Your task to perform on an android device: create a new album in the google photos Image 0: 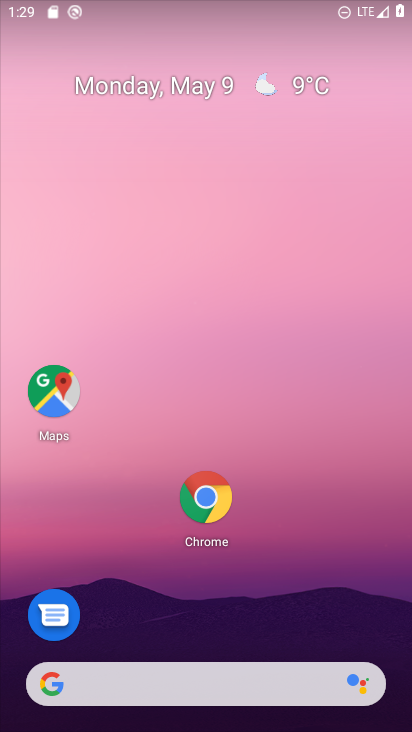
Step 0: drag from (317, 554) to (237, 57)
Your task to perform on an android device: create a new album in the google photos Image 1: 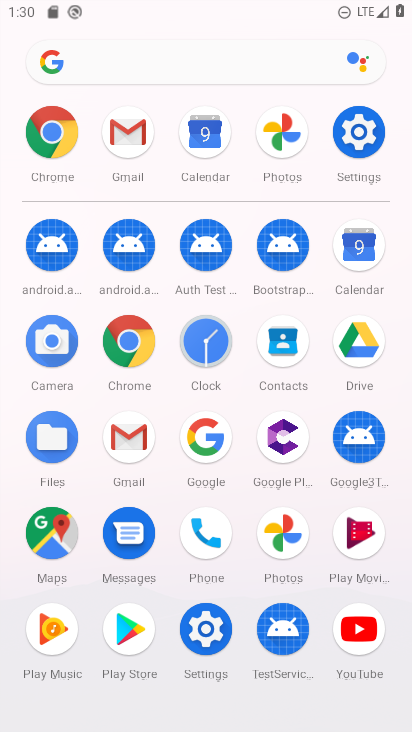
Step 1: click (283, 526)
Your task to perform on an android device: create a new album in the google photos Image 2: 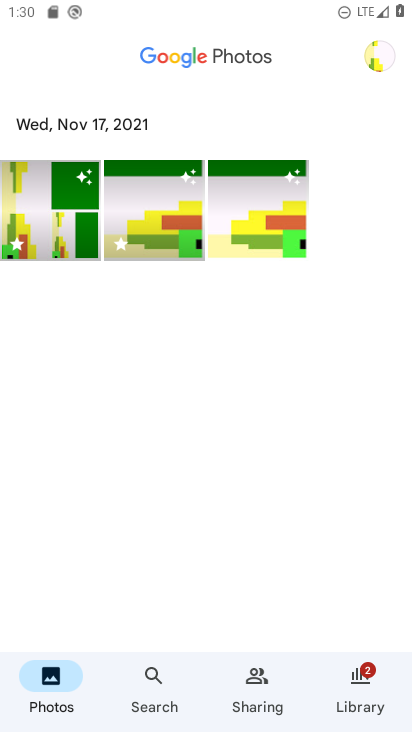
Step 2: click (201, 437)
Your task to perform on an android device: create a new album in the google photos Image 3: 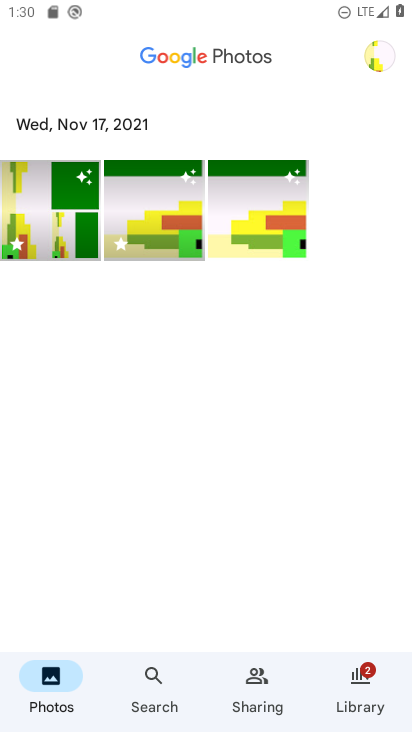
Step 3: click (354, 690)
Your task to perform on an android device: create a new album in the google photos Image 4: 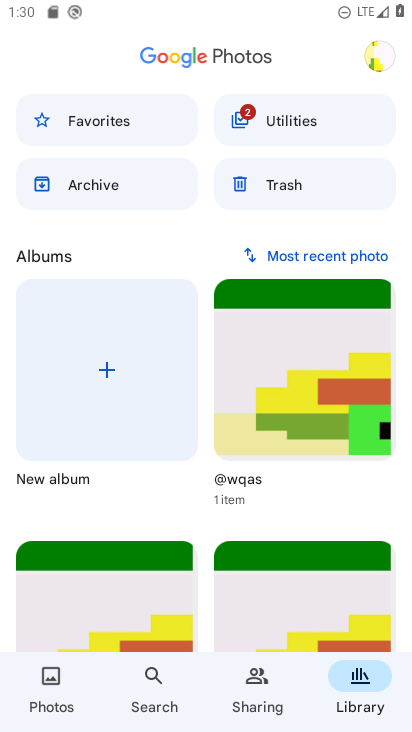
Step 4: click (111, 376)
Your task to perform on an android device: create a new album in the google photos Image 5: 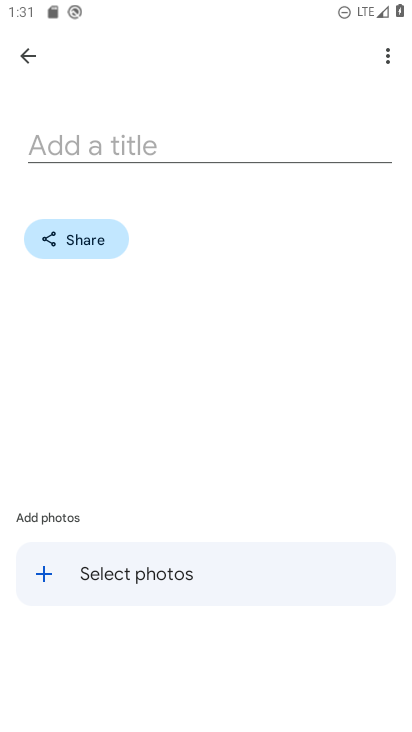
Step 5: click (213, 148)
Your task to perform on an android device: create a new album in the google photos Image 6: 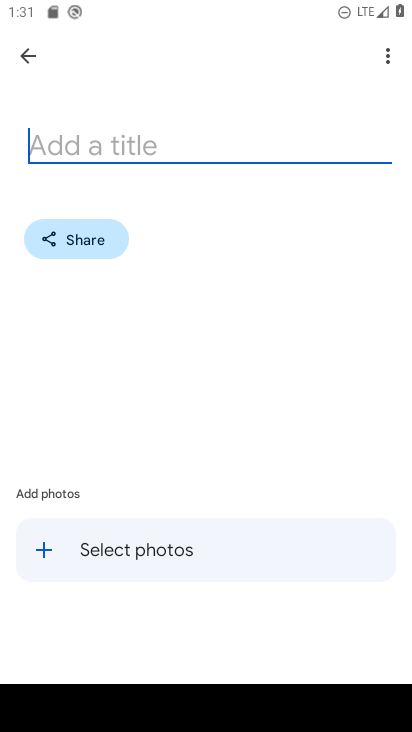
Step 6: type "halmiti habibo"
Your task to perform on an android device: create a new album in the google photos Image 7: 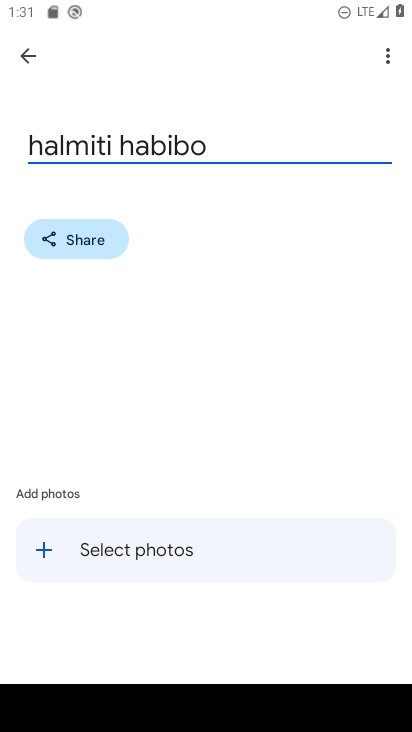
Step 7: press enter
Your task to perform on an android device: create a new album in the google photos Image 8: 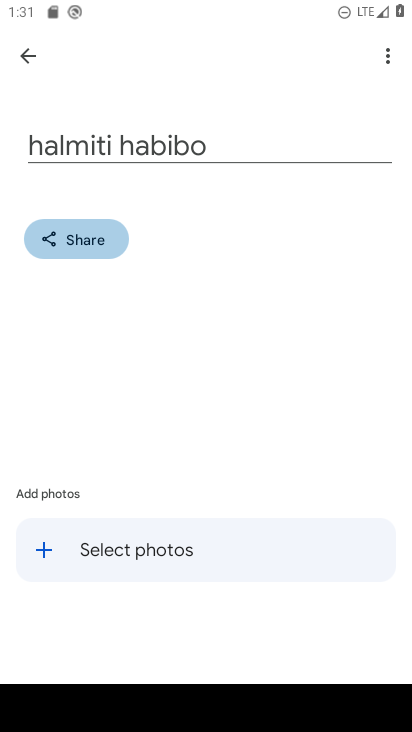
Step 8: press enter
Your task to perform on an android device: create a new album in the google photos Image 9: 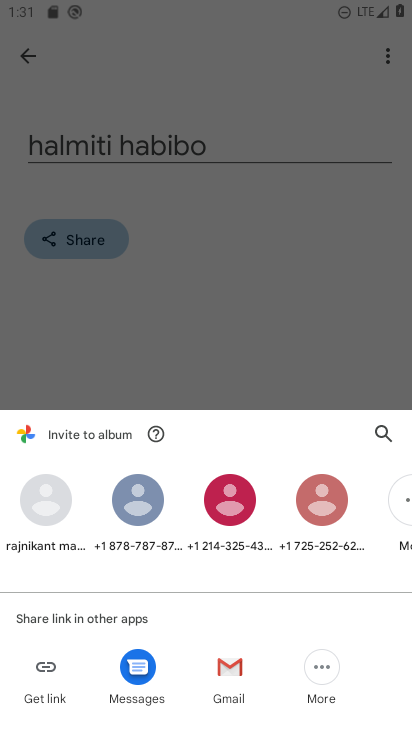
Step 9: click (297, 218)
Your task to perform on an android device: create a new album in the google photos Image 10: 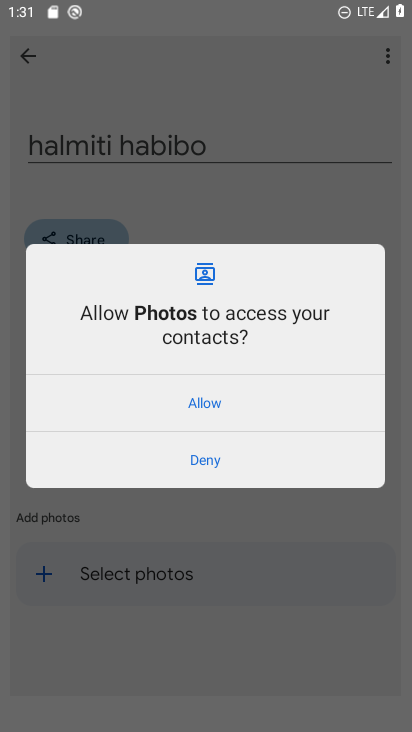
Step 10: click (272, 189)
Your task to perform on an android device: create a new album in the google photos Image 11: 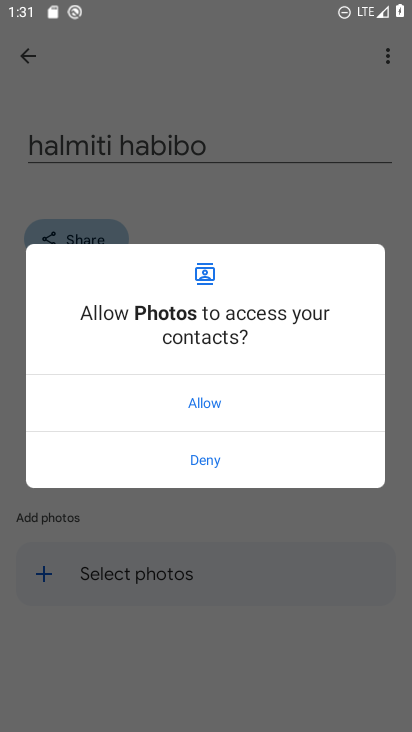
Step 11: click (237, 462)
Your task to perform on an android device: create a new album in the google photos Image 12: 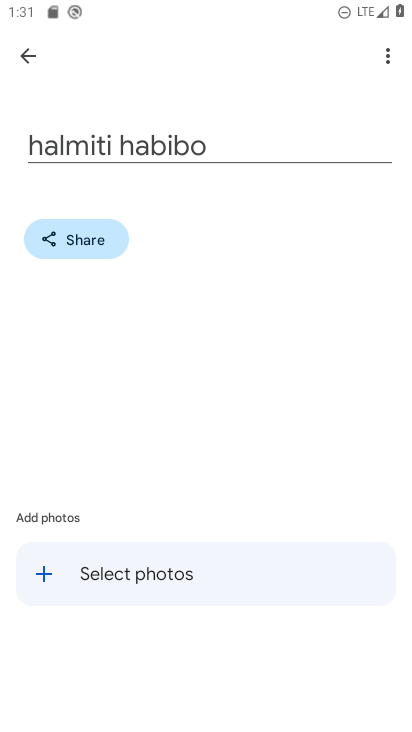
Step 12: click (101, 597)
Your task to perform on an android device: create a new album in the google photos Image 13: 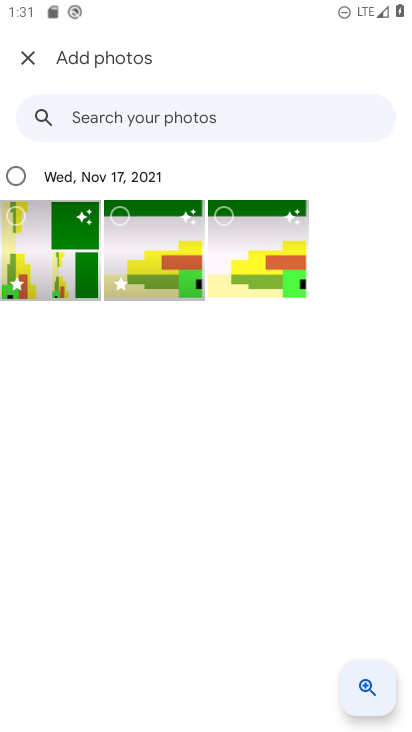
Step 13: click (56, 239)
Your task to perform on an android device: create a new album in the google photos Image 14: 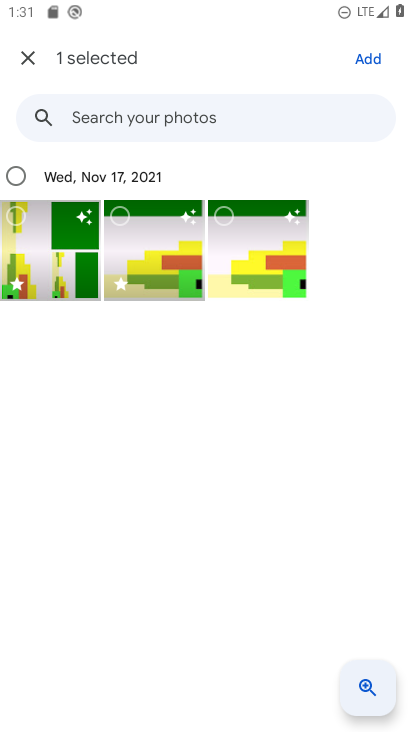
Step 14: click (18, 208)
Your task to perform on an android device: create a new album in the google photos Image 15: 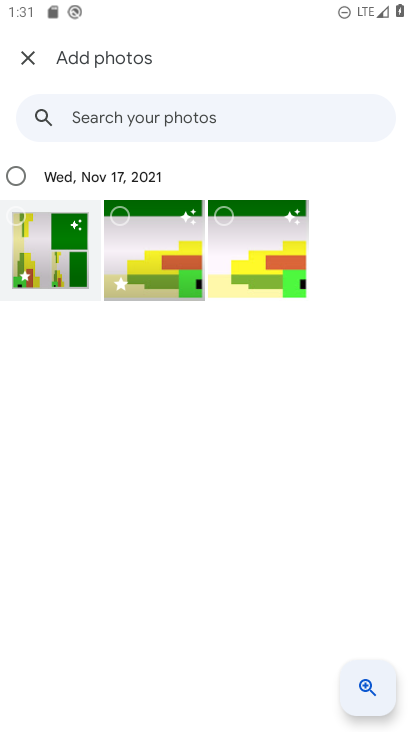
Step 15: press enter
Your task to perform on an android device: create a new album in the google photos Image 16: 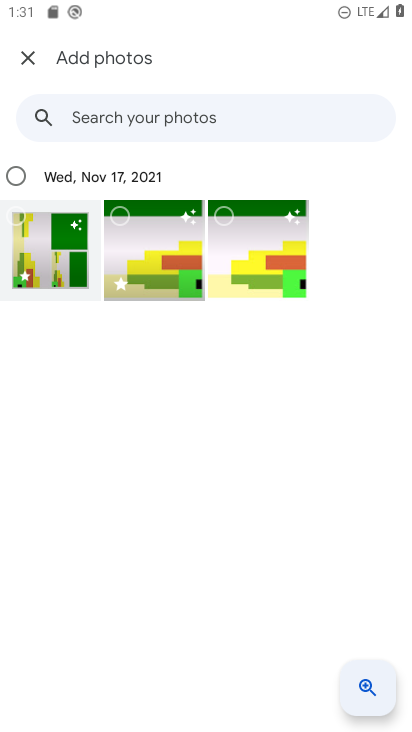
Step 16: click (54, 247)
Your task to perform on an android device: create a new album in the google photos Image 17: 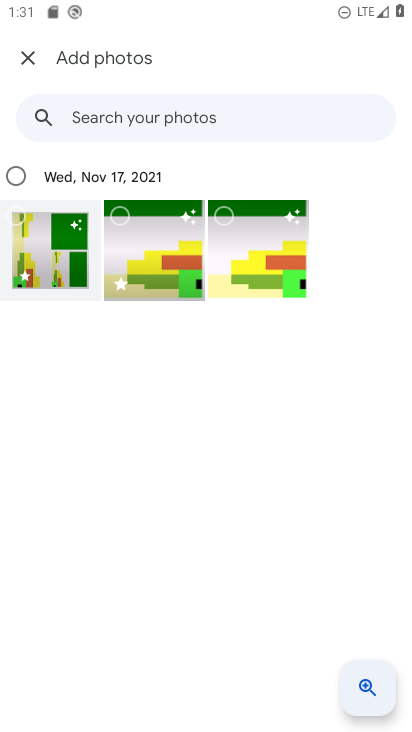
Step 17: press enter
Your task to perform on an android device: create a new album in the google photos Image 18: 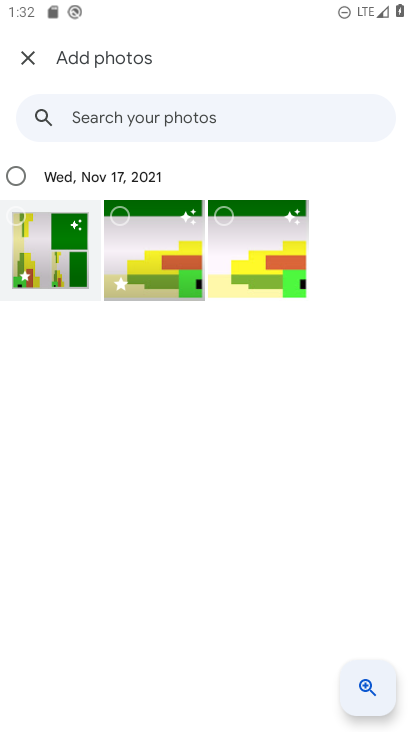
Step 18: click (17, 216)
Your task to perform on an android device: create a new album in the google photos Image 19: 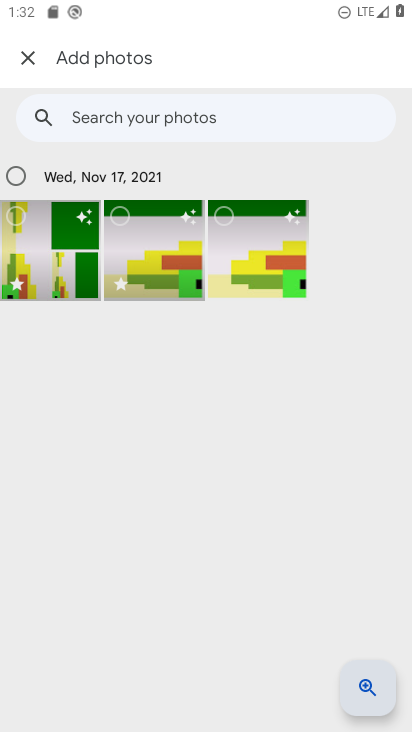
Step 19: press enter
Your task to perform on an android device: create a new album in the google photos Image 20: 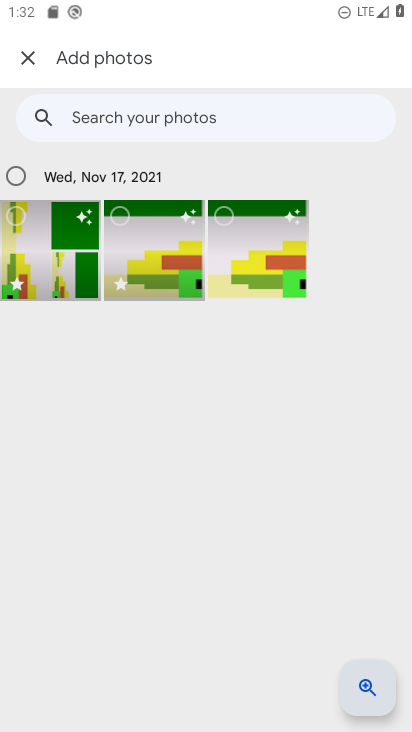
Step 20: click (107, 250)
Your task to perform on an android device: create a new album in the google photos Image 21: 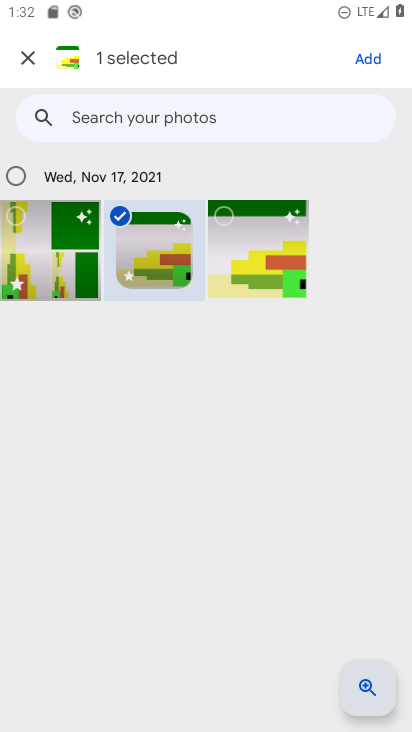
Step 21: click (177, 232)
Your task to perform on an android device: create a new album in the google photos Image 22: 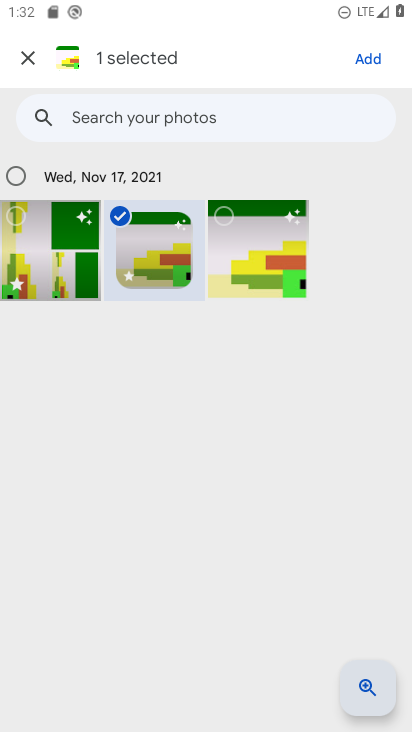
Step 22: click (283, 228)
Your task to perform on an android device: create a new album in the google photos Image 23: 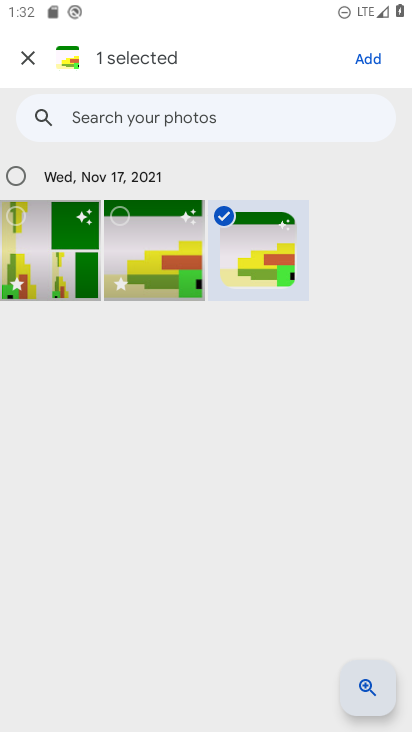
Step 23: click (367, 60)
Your task to perform on an android device: create a new album in the google photos Image 24: 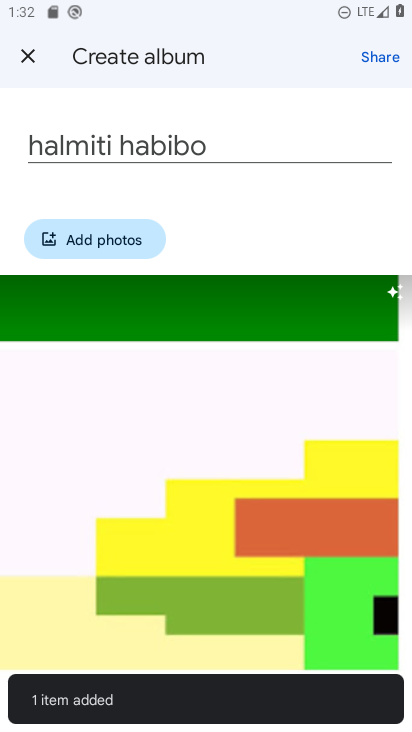
Step 24: press enter
Your task to perform on an android device: create a new album in the google photos Image 25: 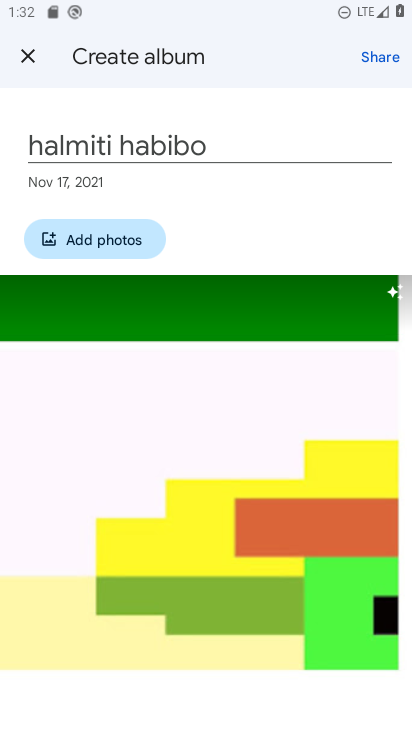
Step 25: press enter
Your task to perform on an android device: create a new album in the google photos Image 26: 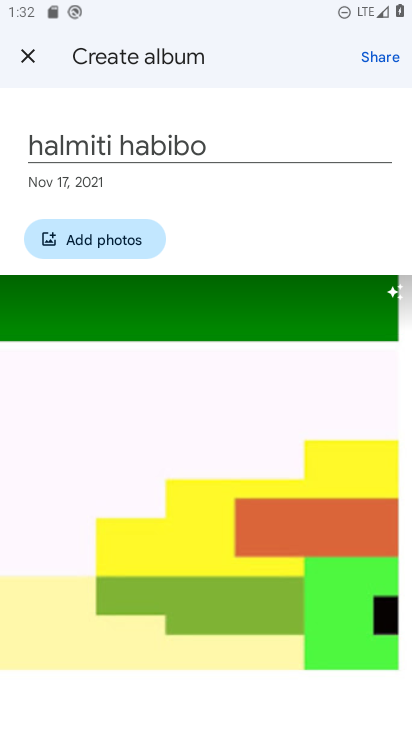
Step 26: task complete